Your task to perform on an android device: open app "Google Play Music" (install if not already installed) Image 0: 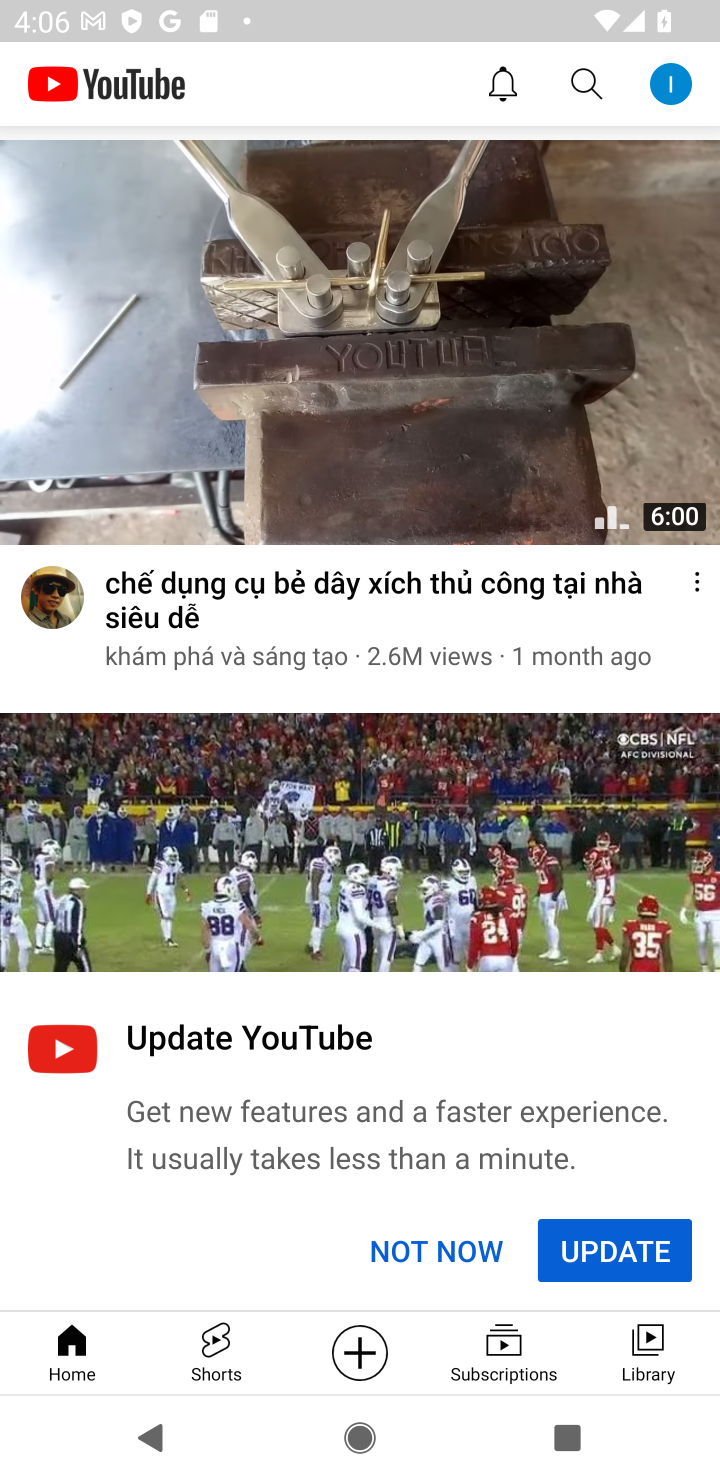
Step 0: click (458, 1227)
Your task to perform on an android device: open app "Google Play Music" (install if not already installed) Image 1: 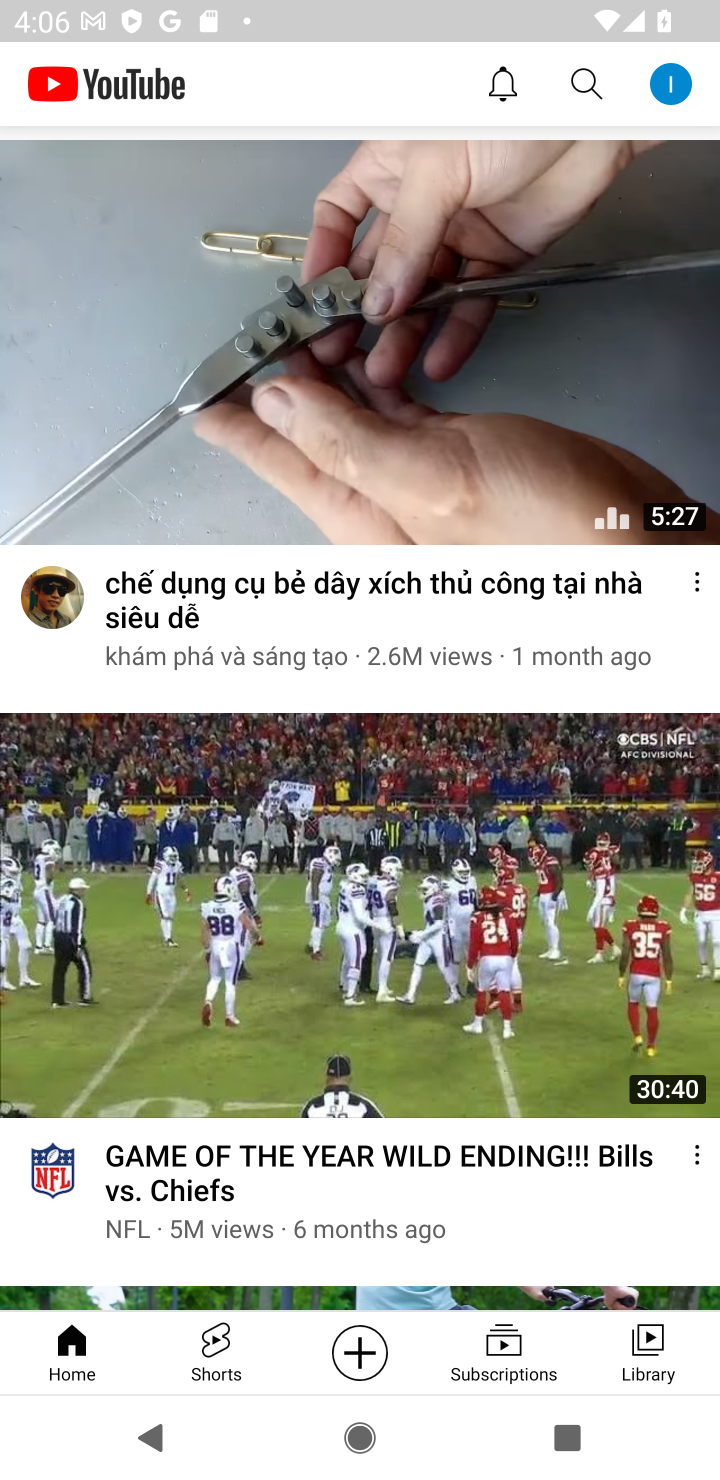
Step 1: press home button
Your task to perform on an android device: open app "Google Play Music" (install if not already installed) Image 2: 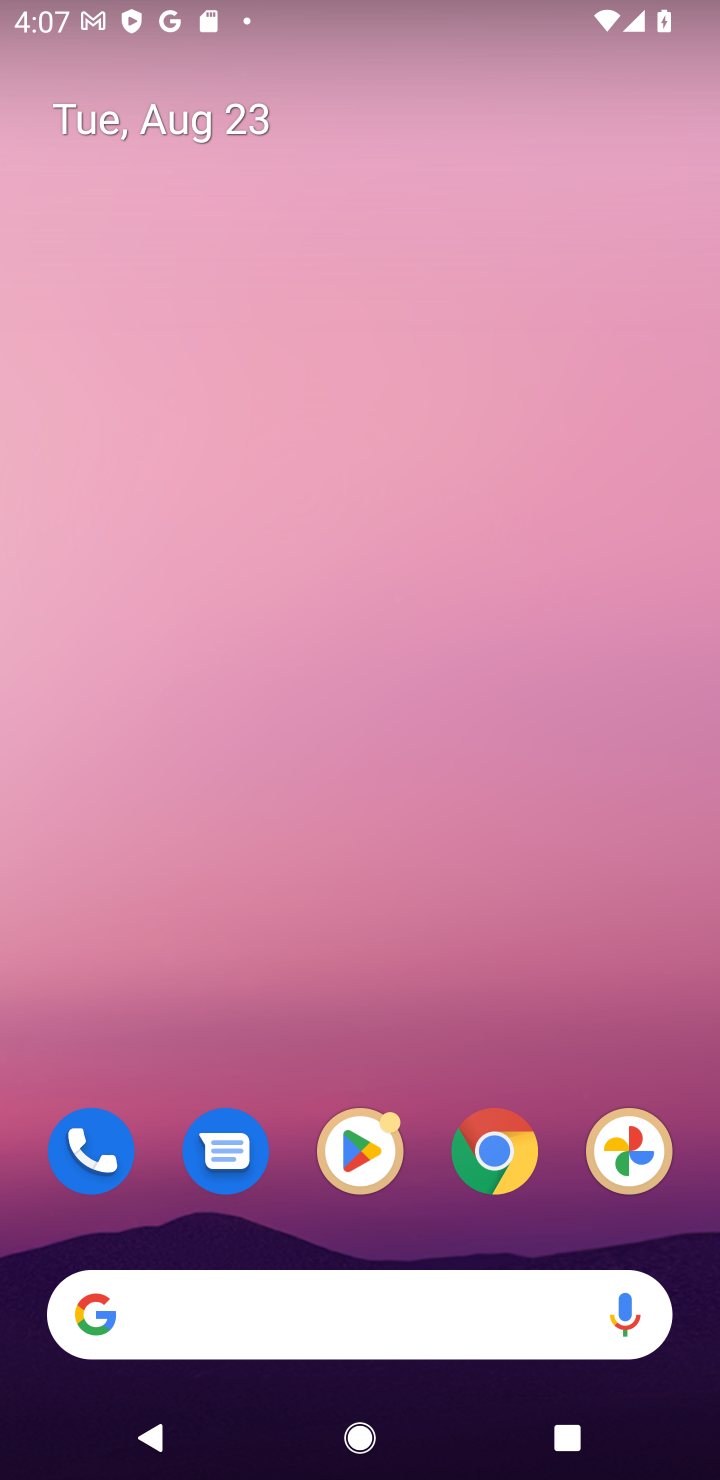
Step 2: click (369, 1147)
Your task to perform on an android device: open app "Google Play Music" (install if not already installed) Image 3: 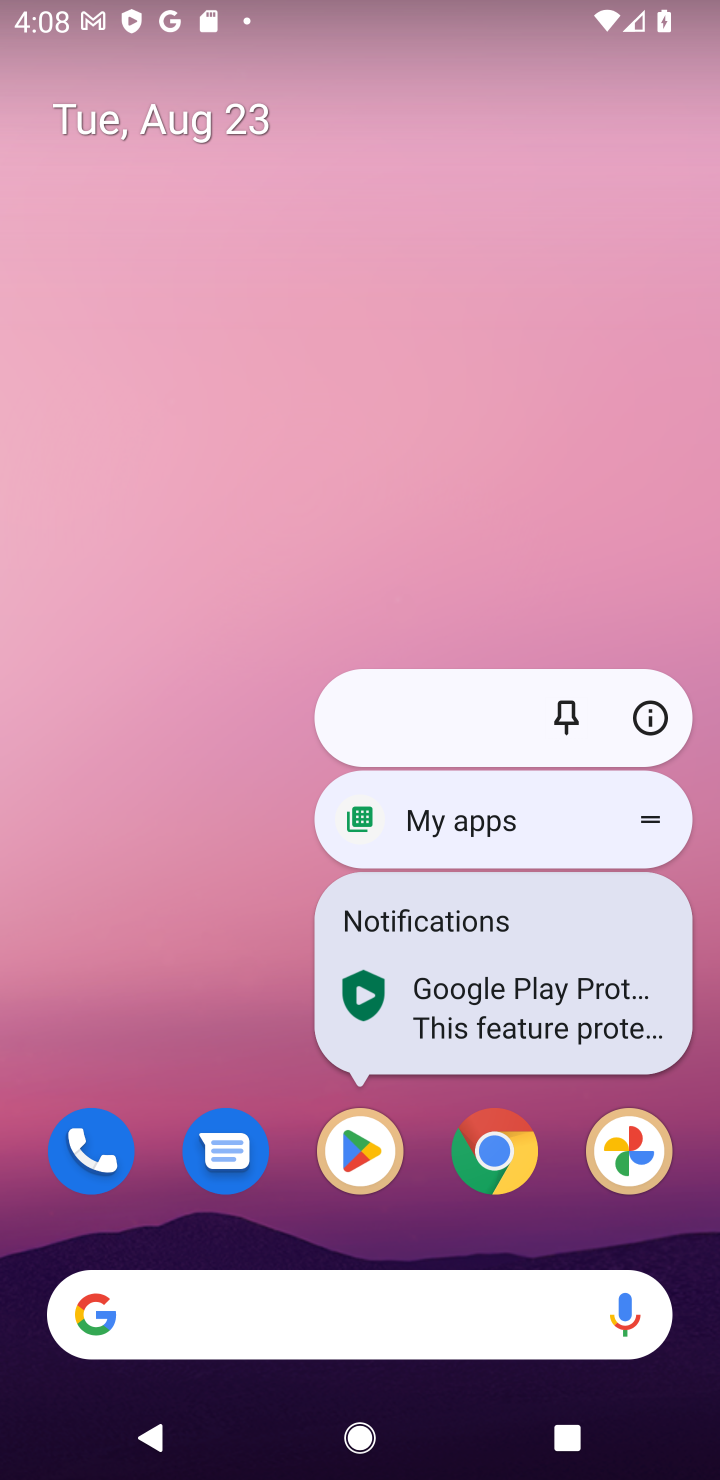
Step 3: click (0, 808)
Your task to perform on an android device: open app "Google Play Music" (install if not already installed) Image 4: 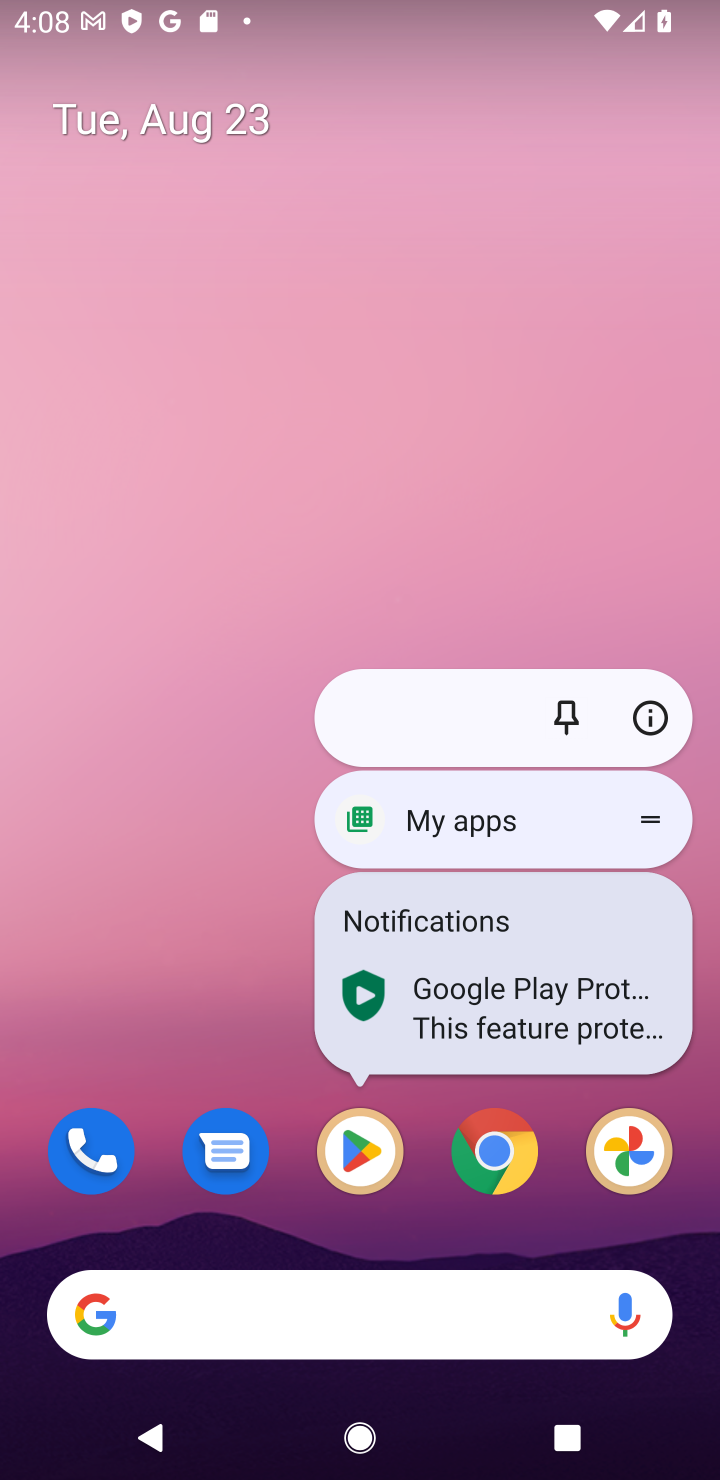
Step 4: click (289, 1051)
Your task to perform on an android device: open app "Google Play Music" (install if not already installed) Image 5: 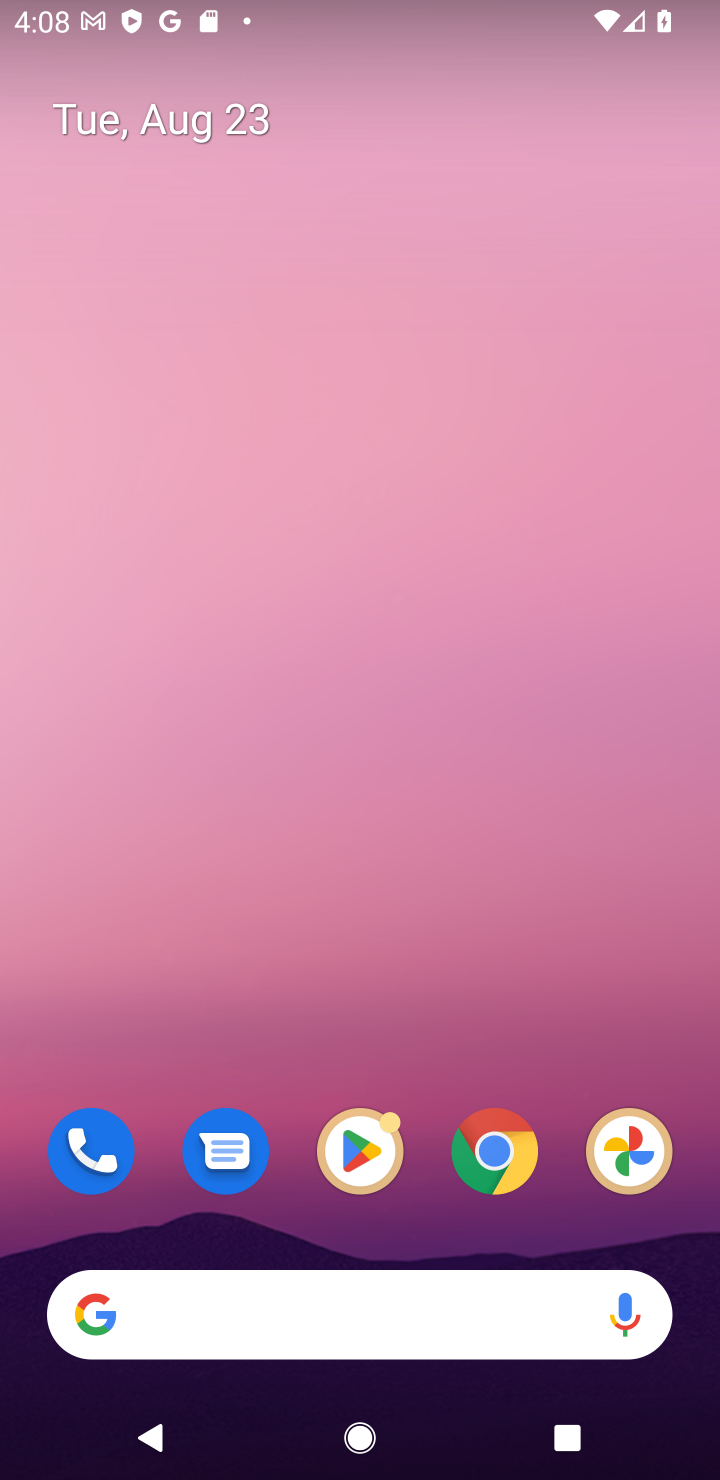
Step 5: click (357, 1131)
Your task to perform on an android device: open app "Google Play Music" (install if not already installed) Image 6: 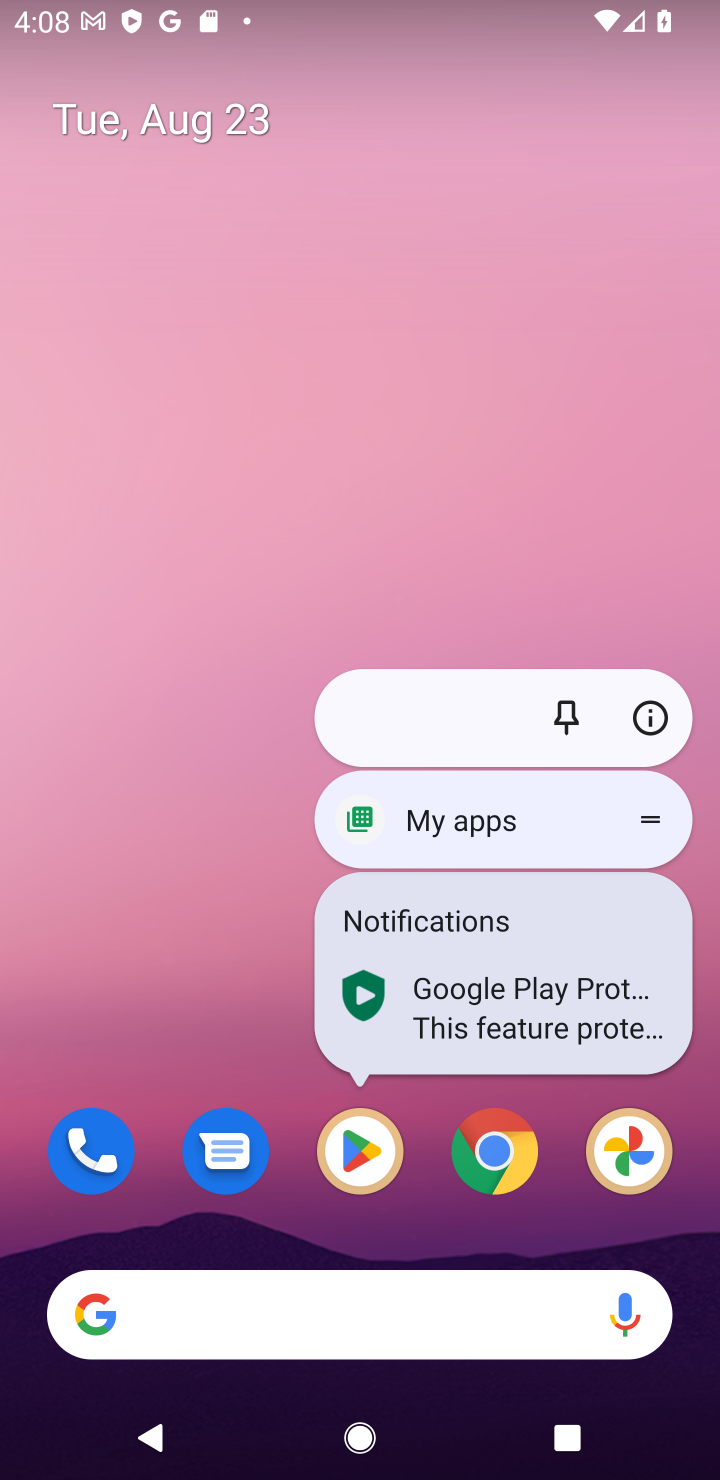
Step 6: click (359, 1131)
Your task to perform on an android device: open app "Google Play Music" (install if not already installed) Image 7: 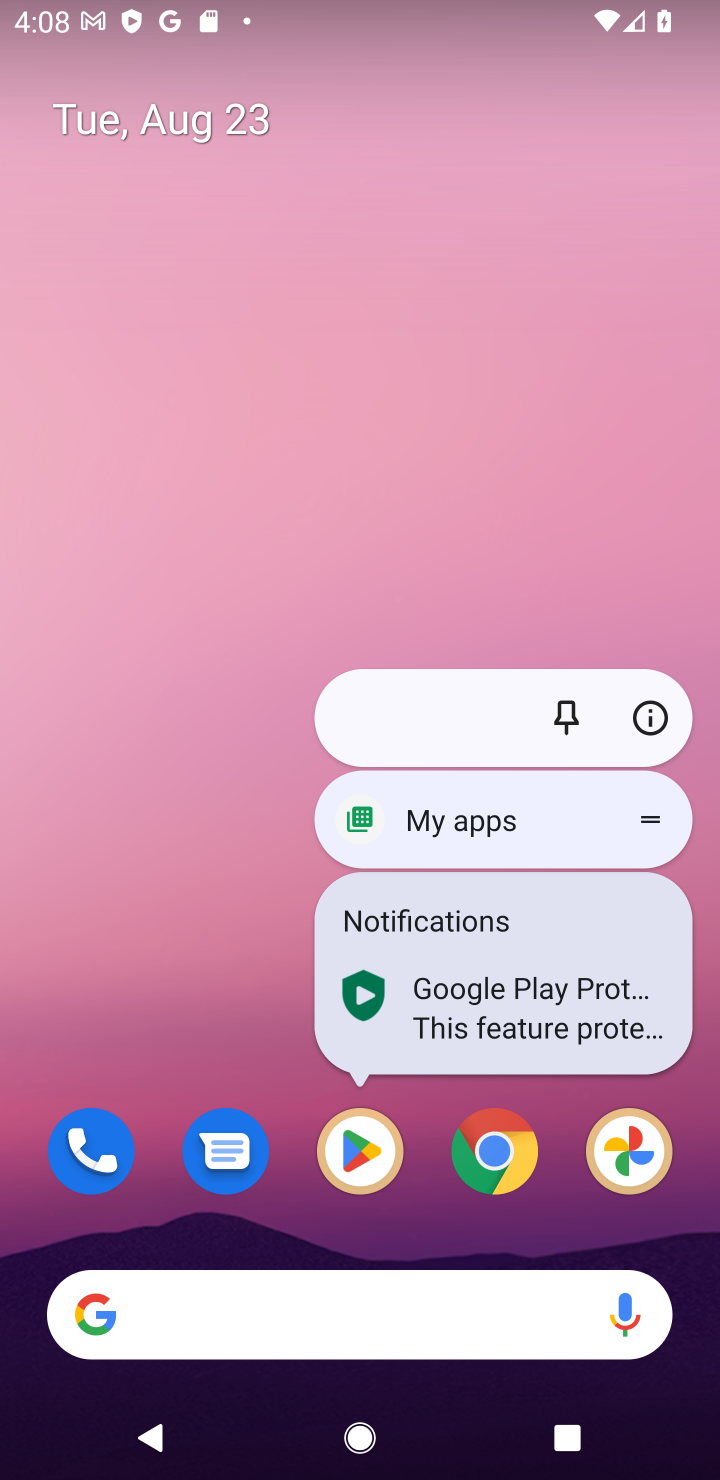
Step 7: drag from (163, 1004) to (158, 36)
Your task to perform on an android device: open app "Google Play Music" (install if not already installed) Image 8: 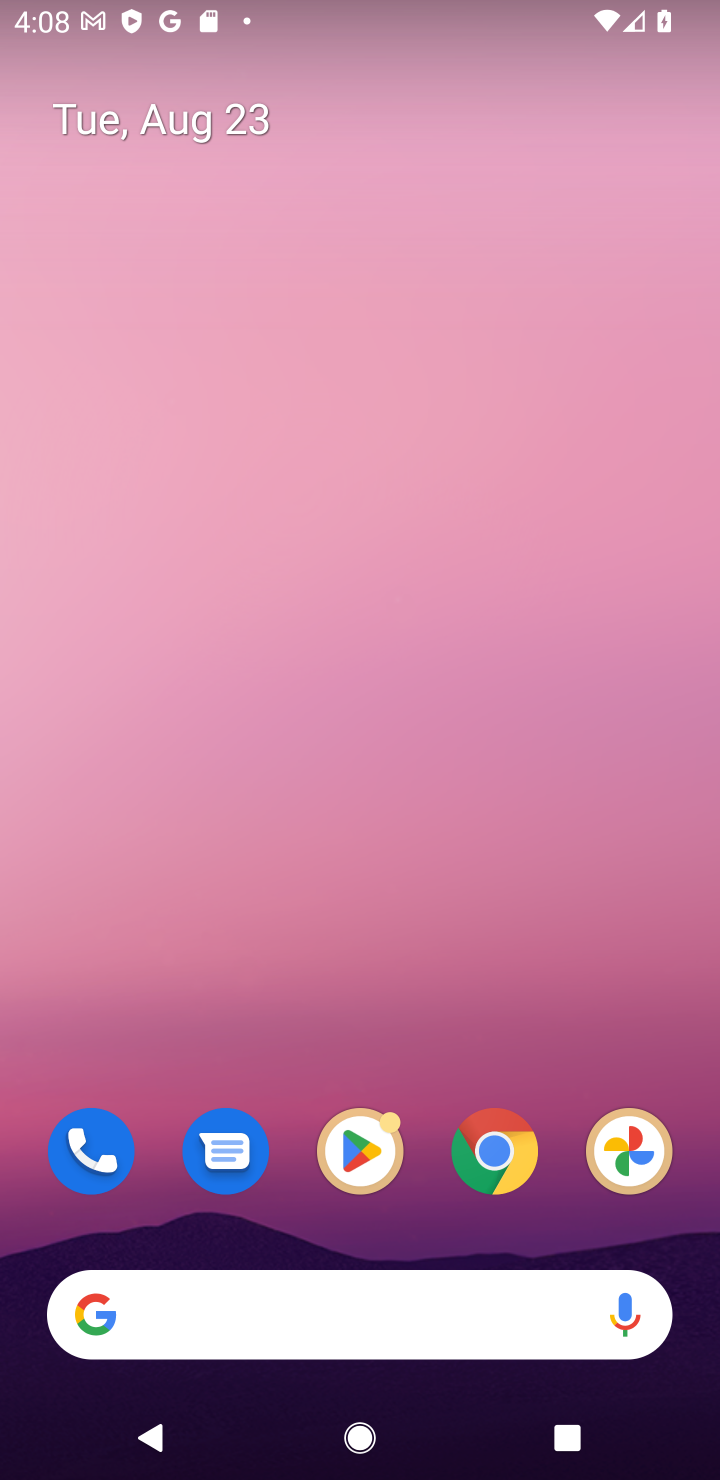
Step 8: drag from (413, 1093) to (442, 30)
Your task to perform on an android device: open app "Google Play Music" (install if not already installed) Image 9: 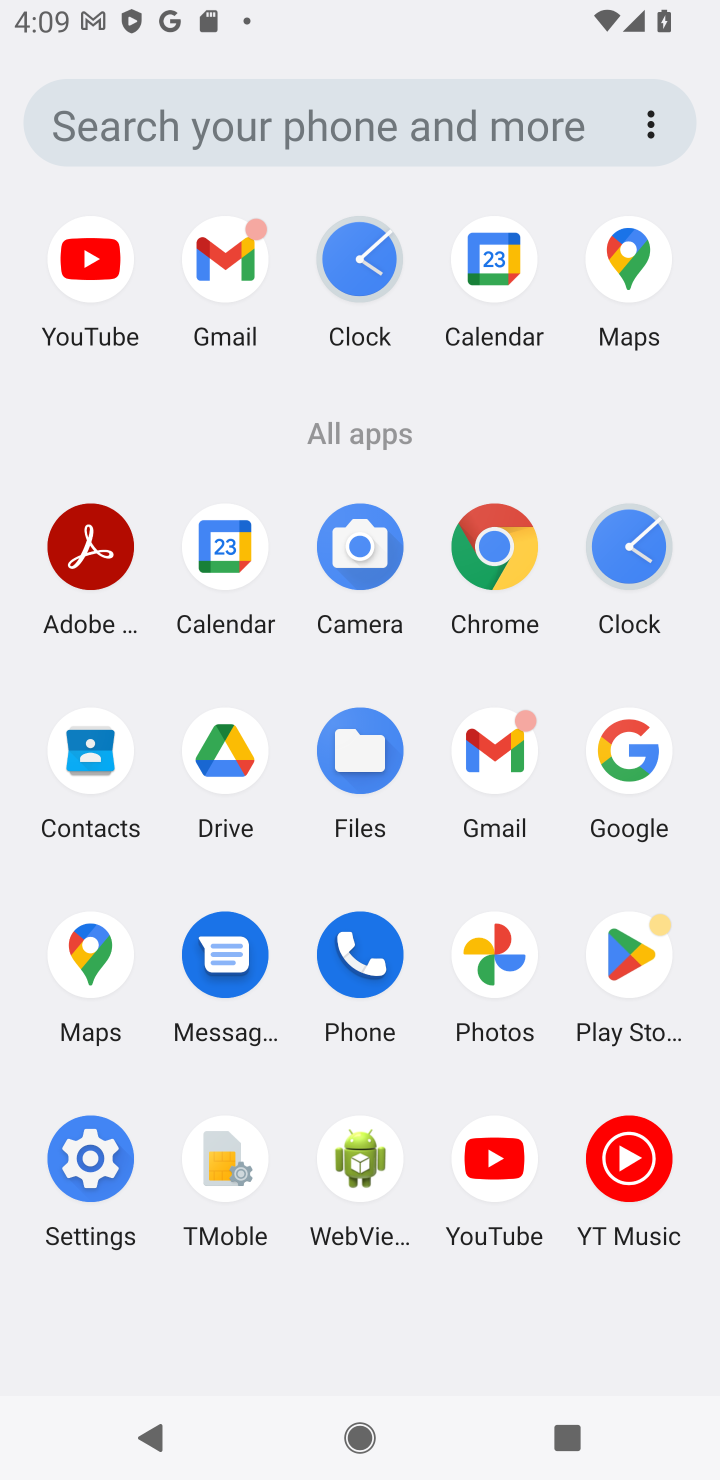
Step 9: click (615, 944)
Your task to perform on an android device: open app "Google Play Music" (install if not already installed) Image 10: 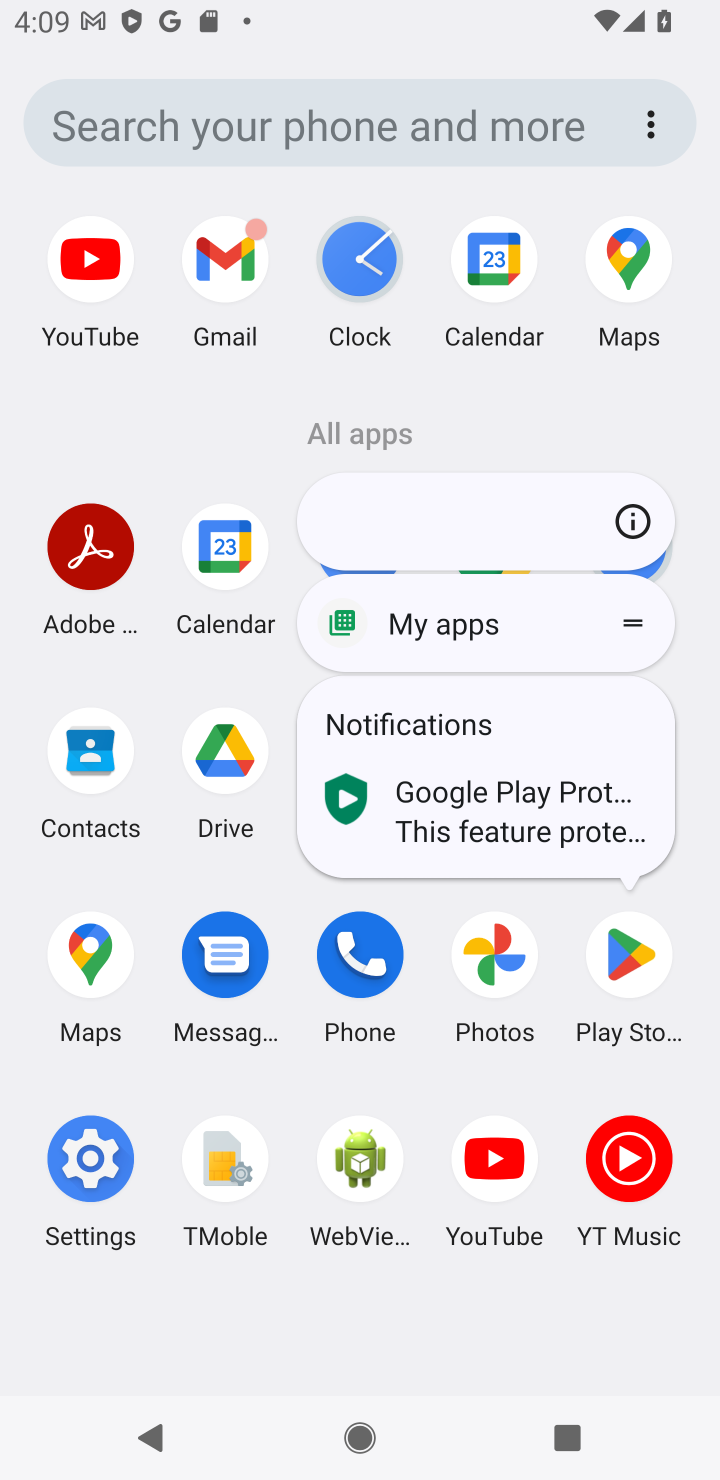
Step 10: click (624, 958)
Your task to perform on an android device: open app "Google Play Music" (install if not already installed) Image 11: 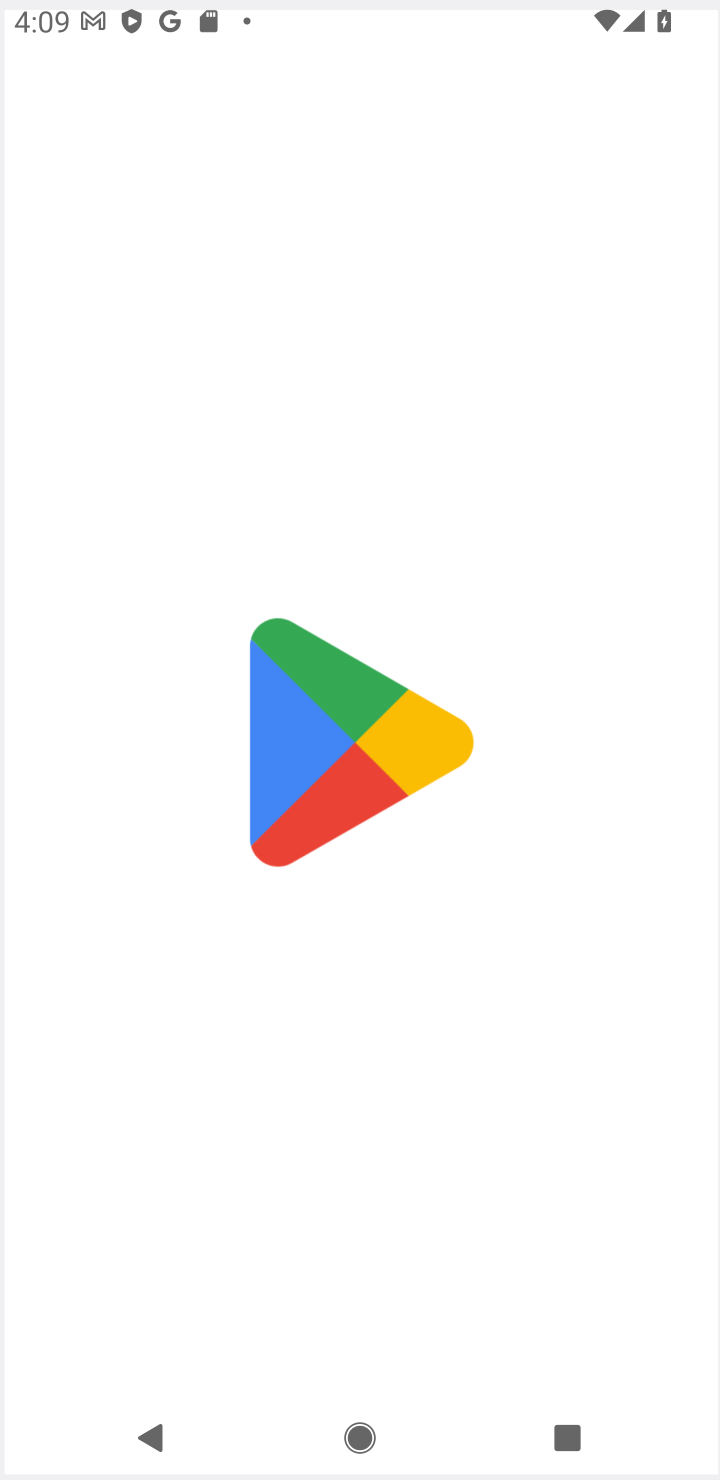
Step 11: click (624, 958)
Your task to perform on an android device: open app "Google Play Music" (install if not already installed) Image 12: 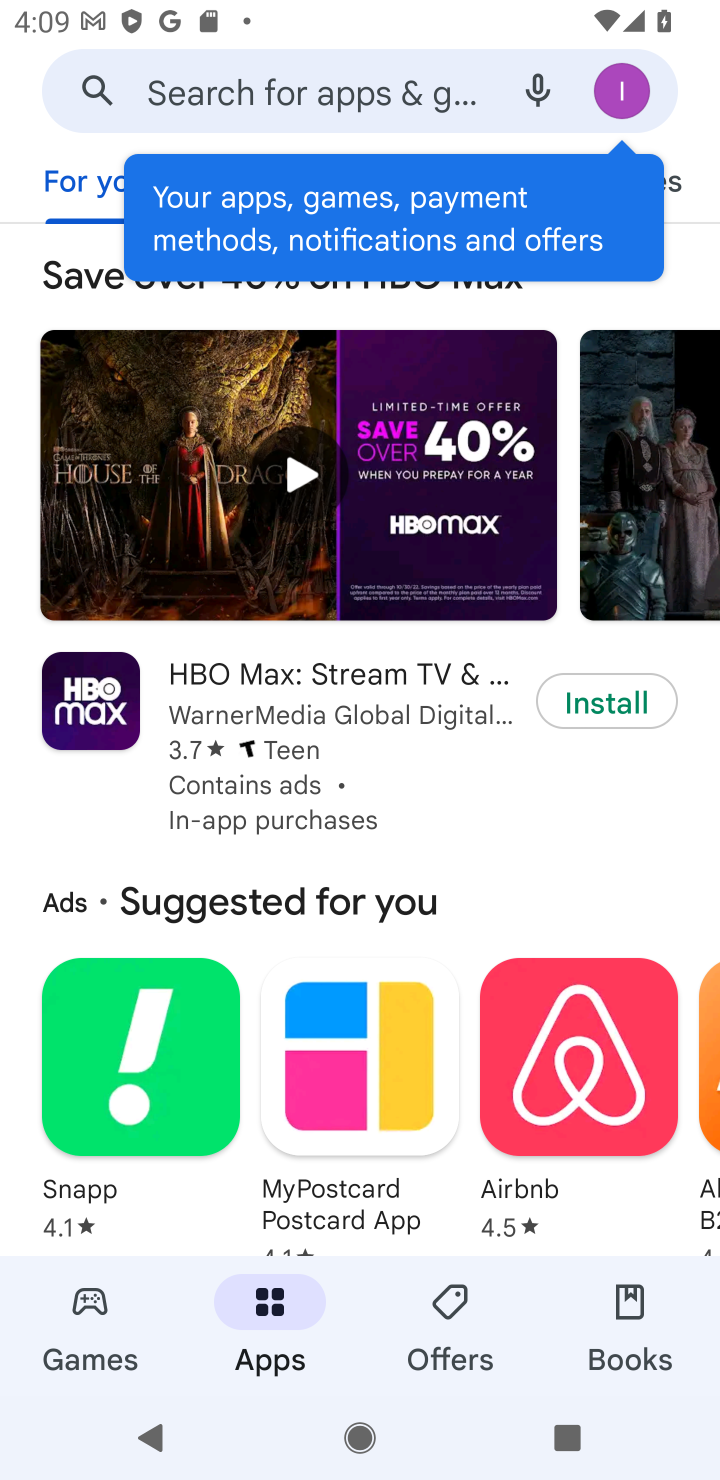
Step 12: click (161, 89)
Your task to perform on an android device: open app "Google Play Music" (install if not already installed) Image 13: 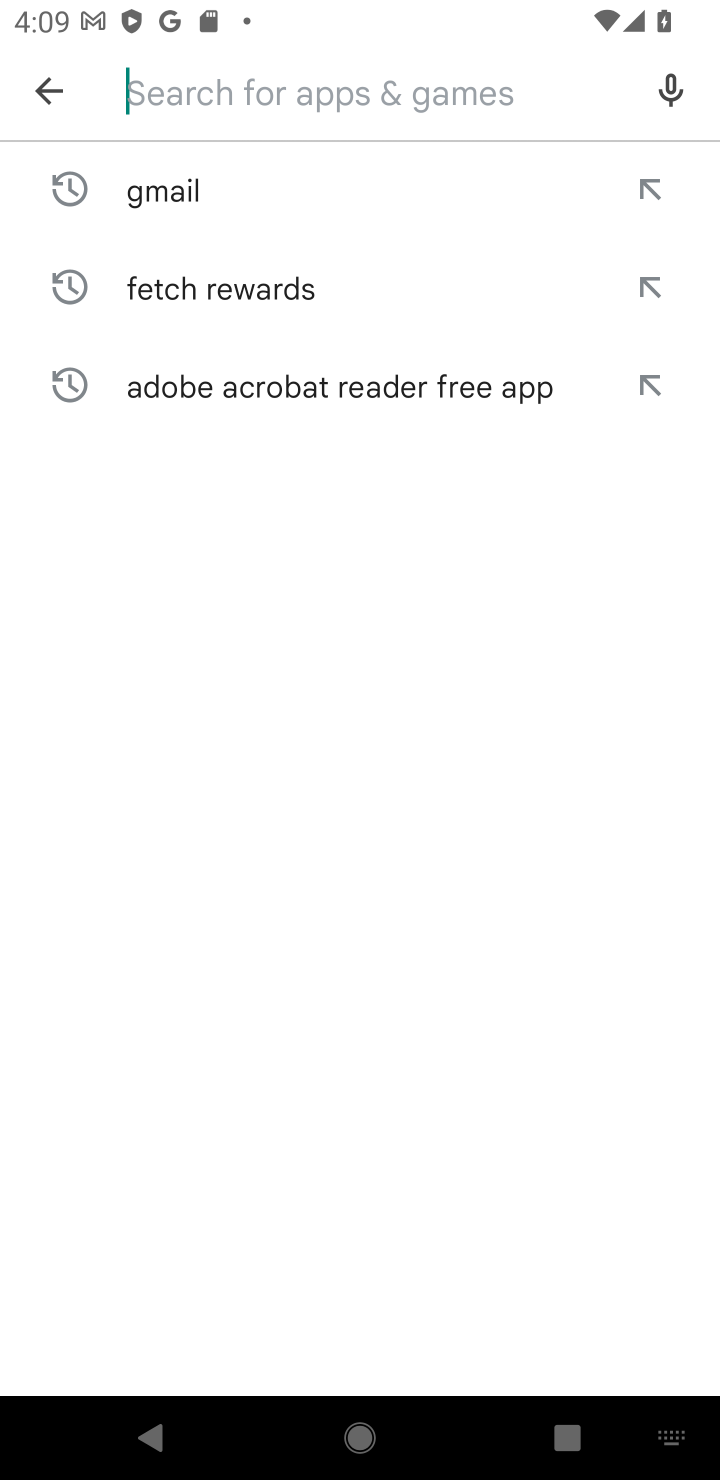
Step 13: type "Google Play Music"
Your task to perform on an android device: open app "Google Play Music" (install if not already installed) Image 14: 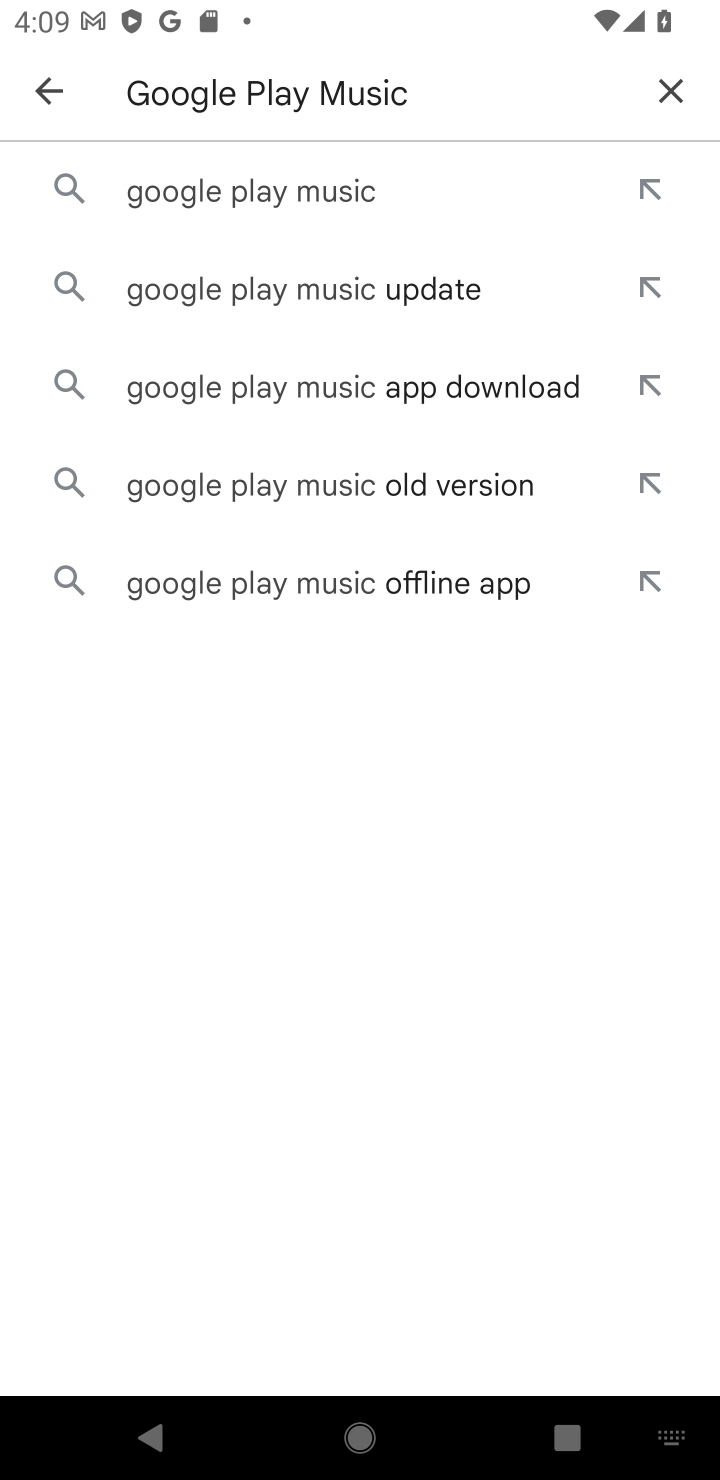
Step 14: click (288, 177)
Your task to perform on an android device: open app "Google Play Music" (install if not already installed) Image 15: 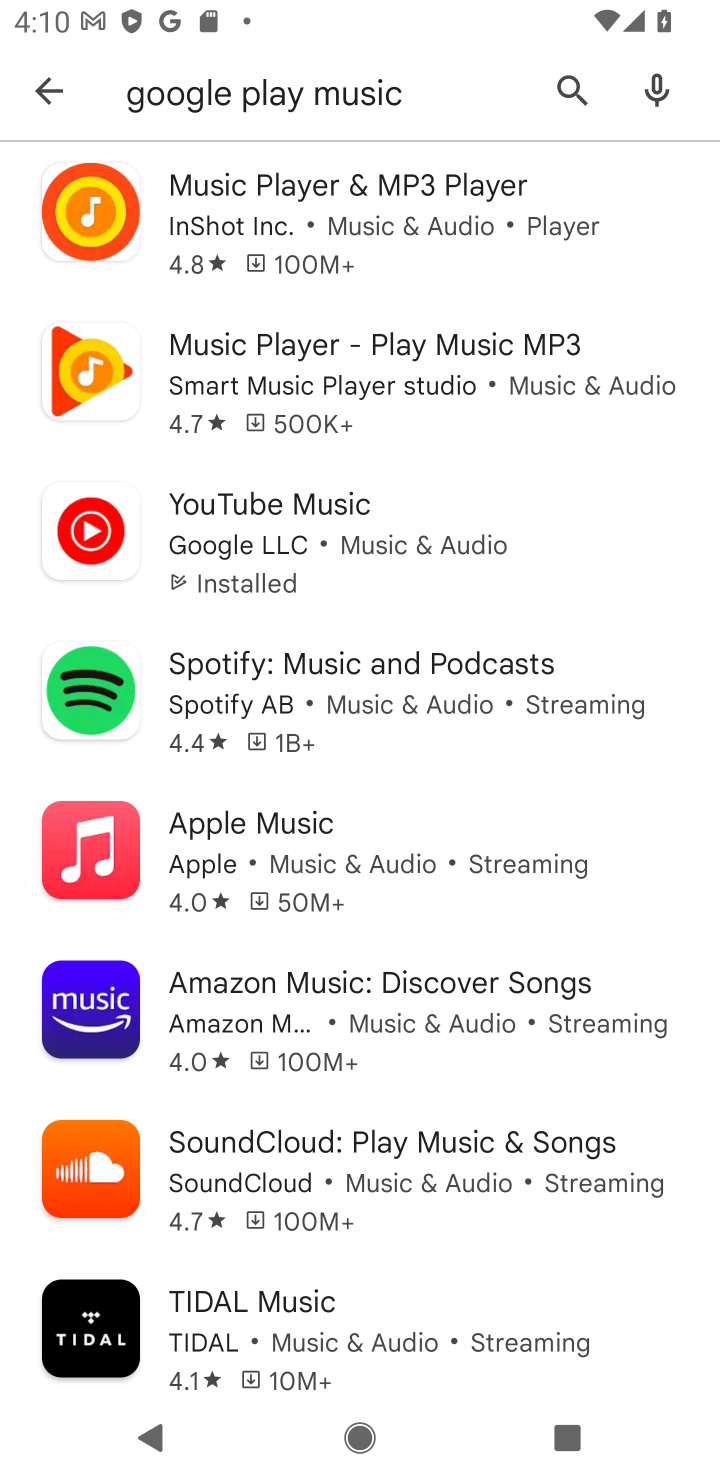
Step 15: task complete